Your task to perform on an android device: delete the emails in spam in the gmail app Image 0: 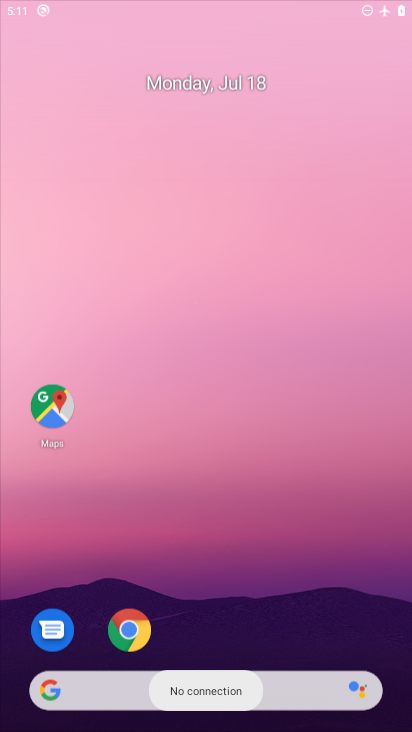
Step 0: drag from (189, 348) to (193, 401)
Your task to perform on an android device: delete the emails in spam in the gmail app Image 1: 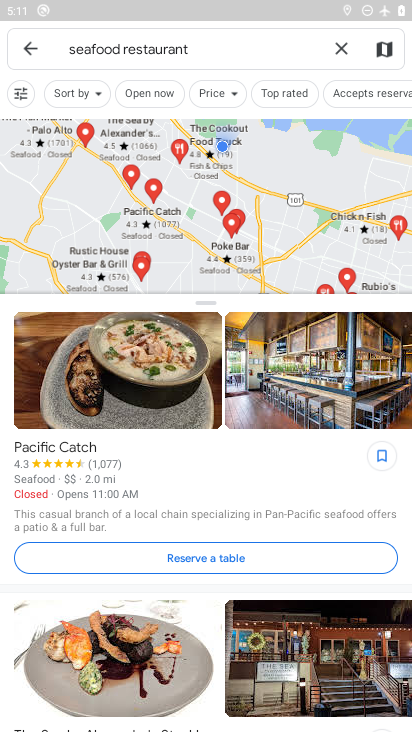
Step 1: drag from (265, 7) to (304, 319)
Your task to perform on an android device: delete the emails in spam in the gmail app Image 2: 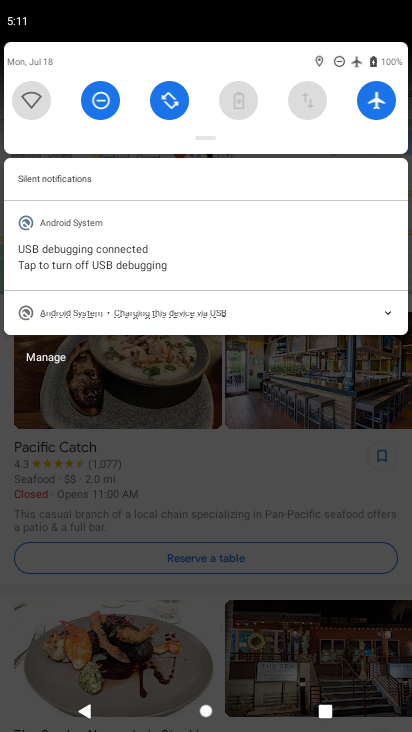
Step 2: click (376, 97)
Your task to perform on an android device: delete the emails in spam in the gmail app Image 3: 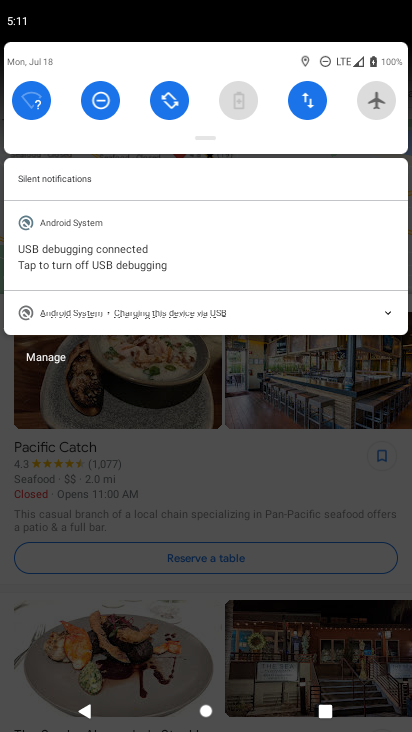
Step 3: task complete